Your task to perform on an android device: install app "Spotify: Music and Podcasts" Image 0: 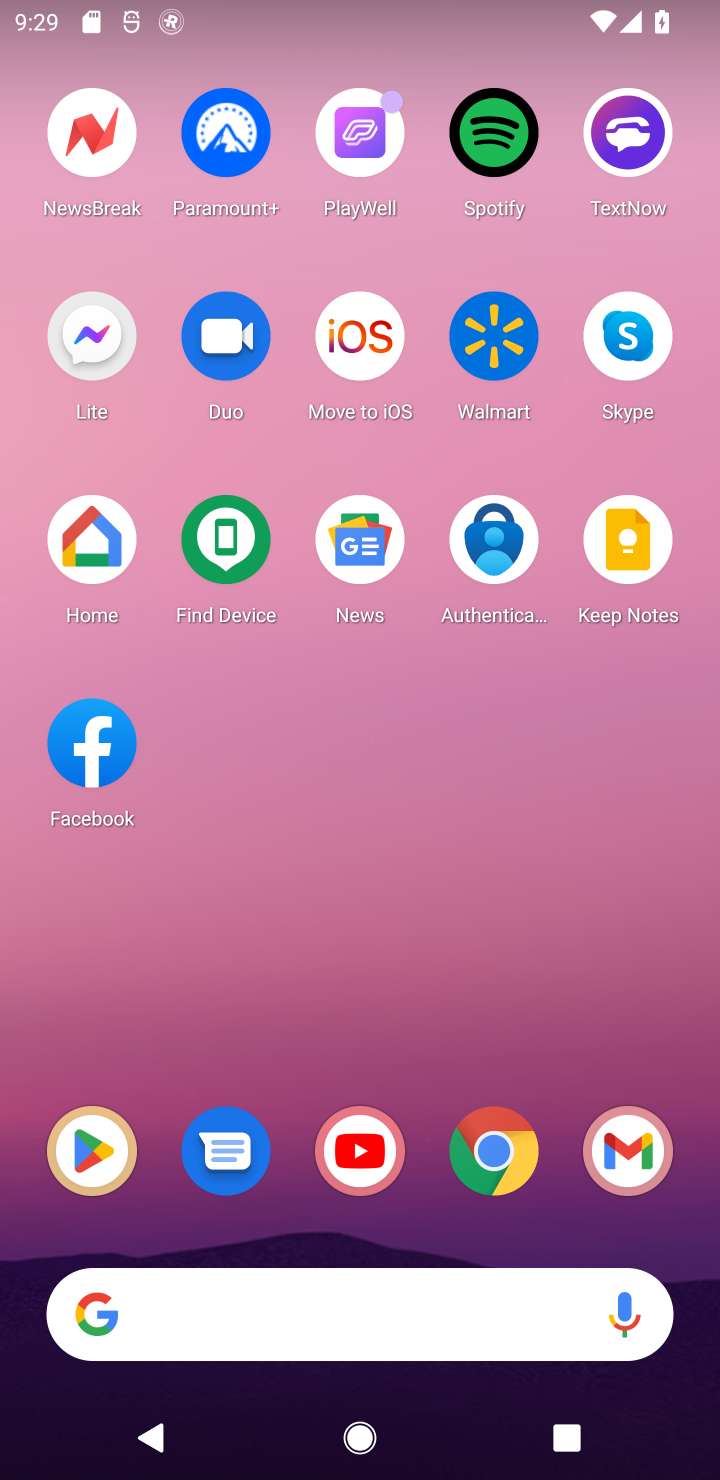
Step 0: click (71, 1131)
Your task to perform on an android device: install app "Spotify: Music and Podcasts" Image 1: 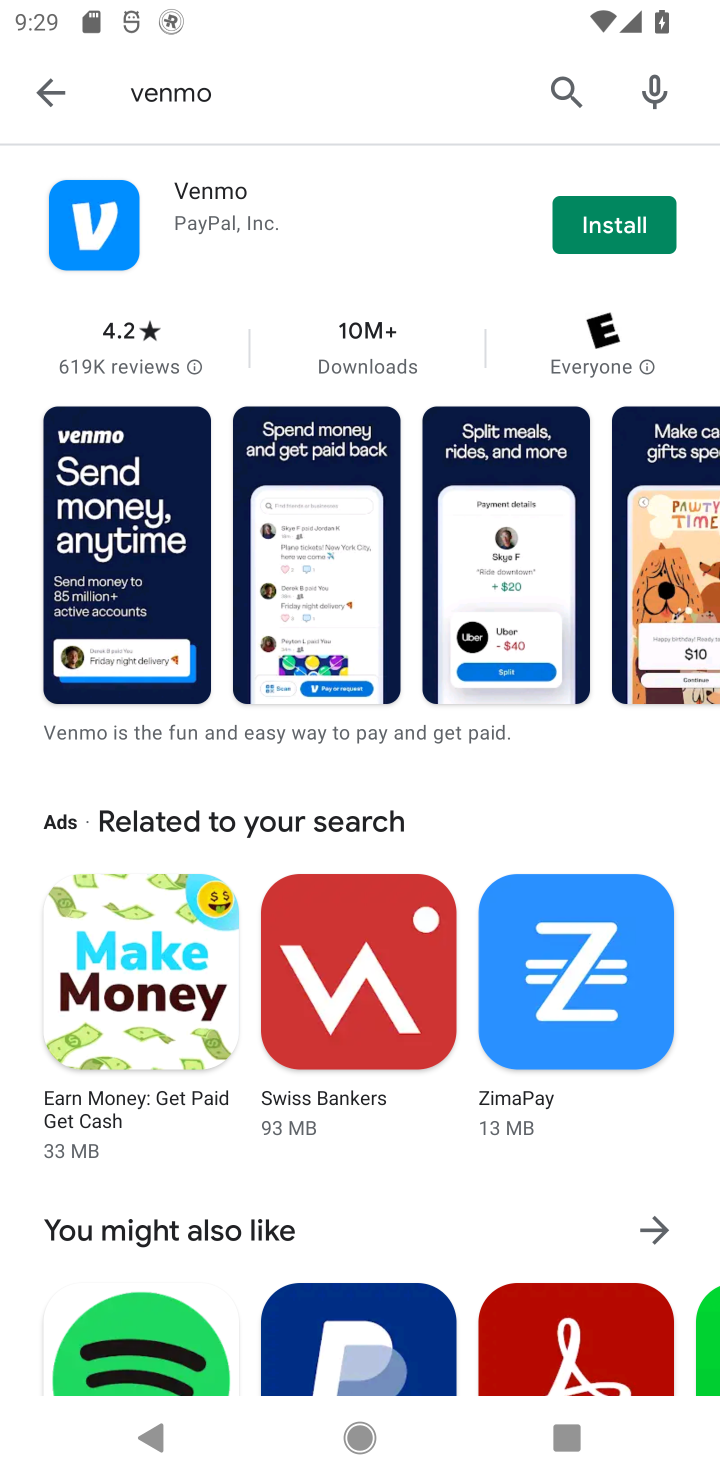
Step 1: click (574, 86)
Your task to perform on an android device: install app "Spotify: Music and Podcasts" Image 2: 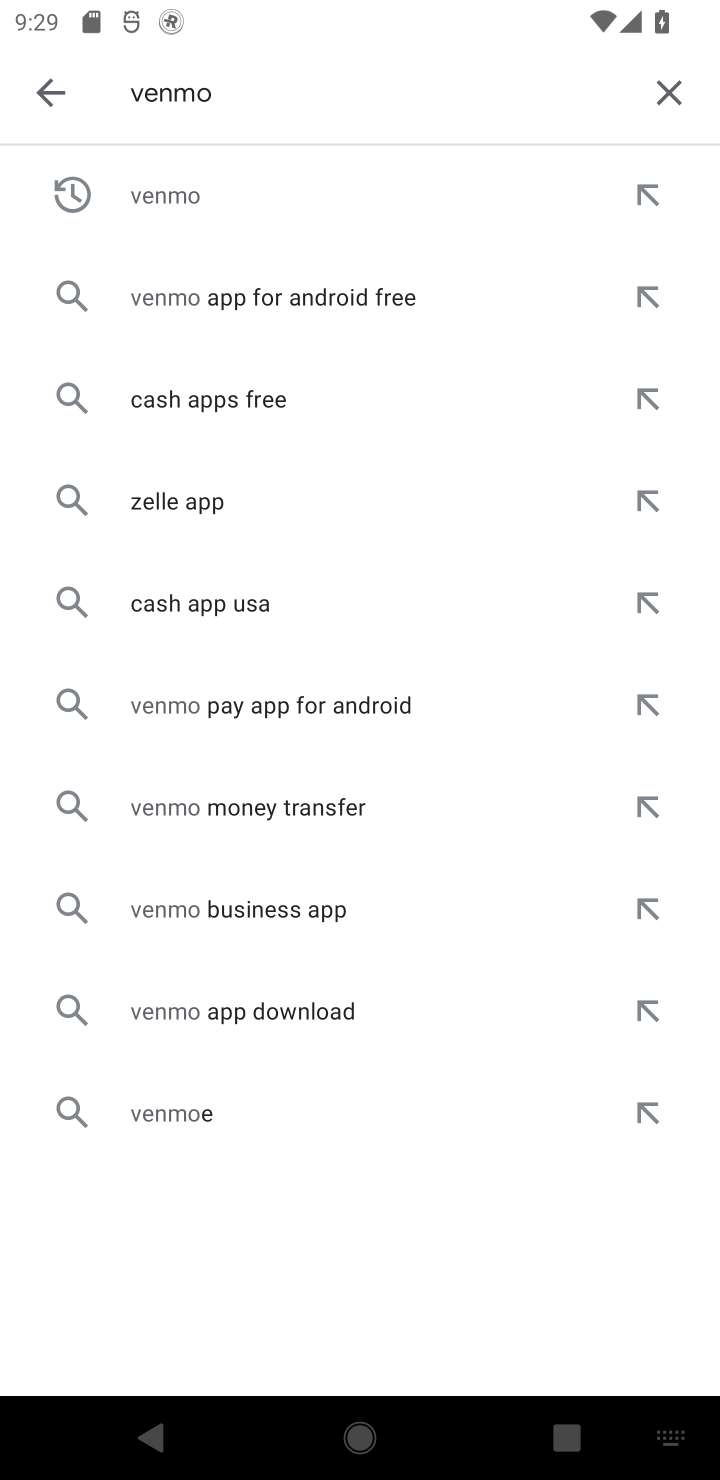
Step 2: click (661, 77)
Your task to perform on an android device: install app "Spotify: Music and Podcasts" Image 3: 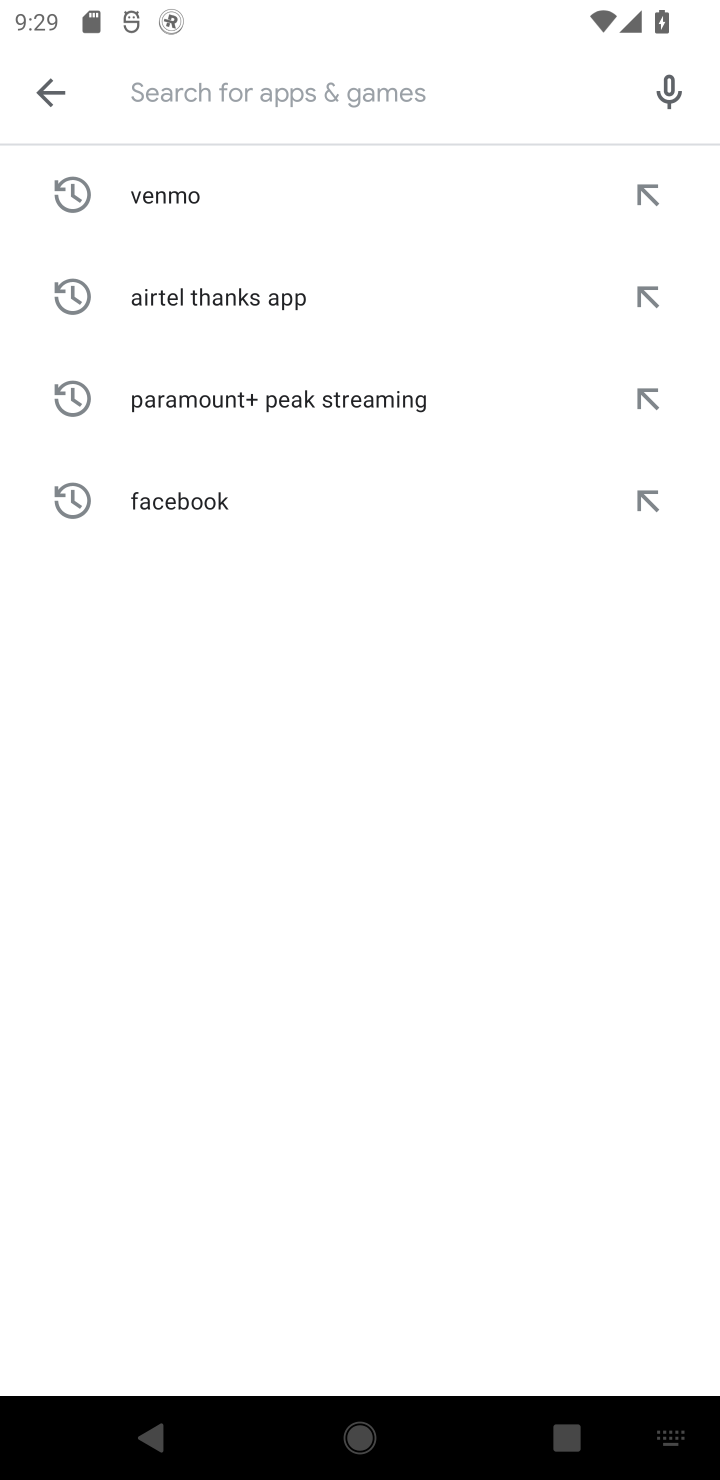
Step 3: type "Spotify: Music and Podcasts"
Your task to perform on an android device: install app "Spotify: Music and Podcasts" Image 4: 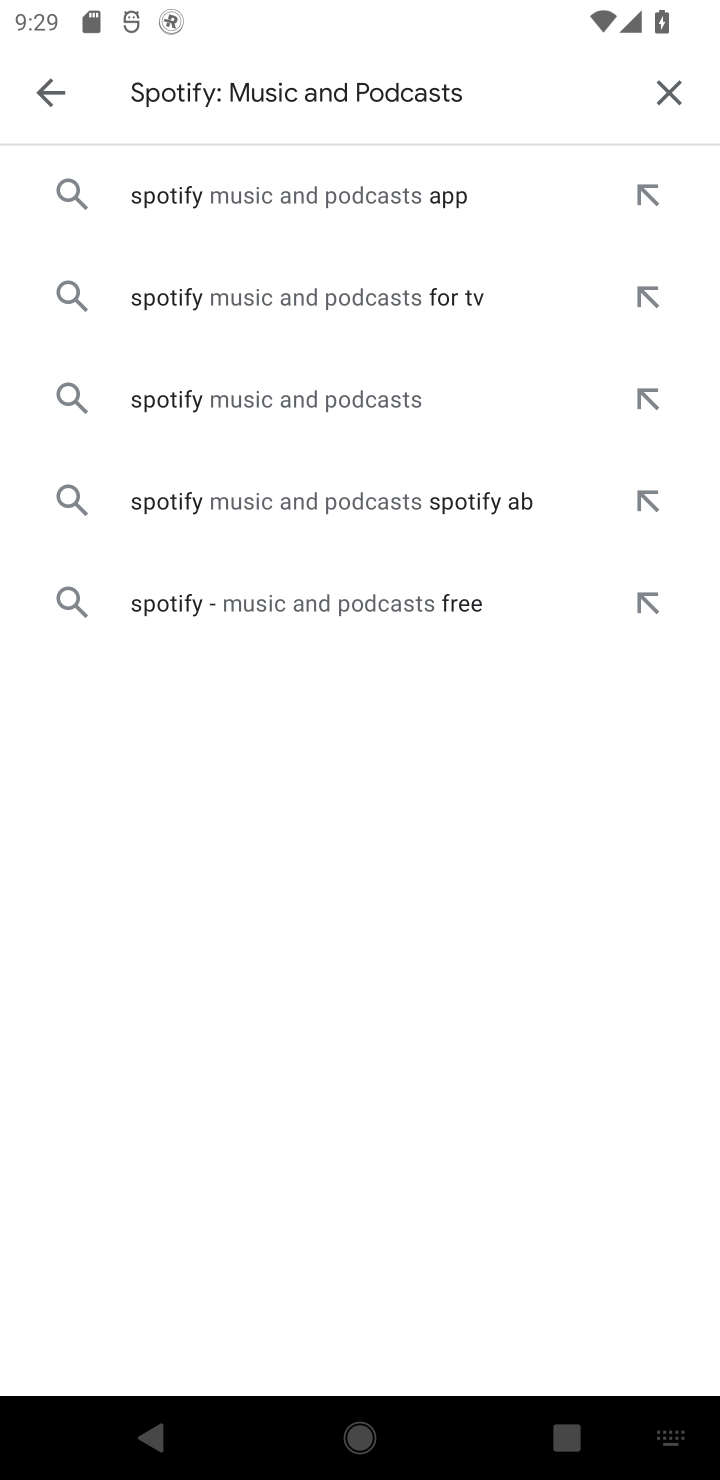
Step 4: click (365, 193)
Your task to perform on an android device: install app "Spotify: Music and Podcasts" Image 5: 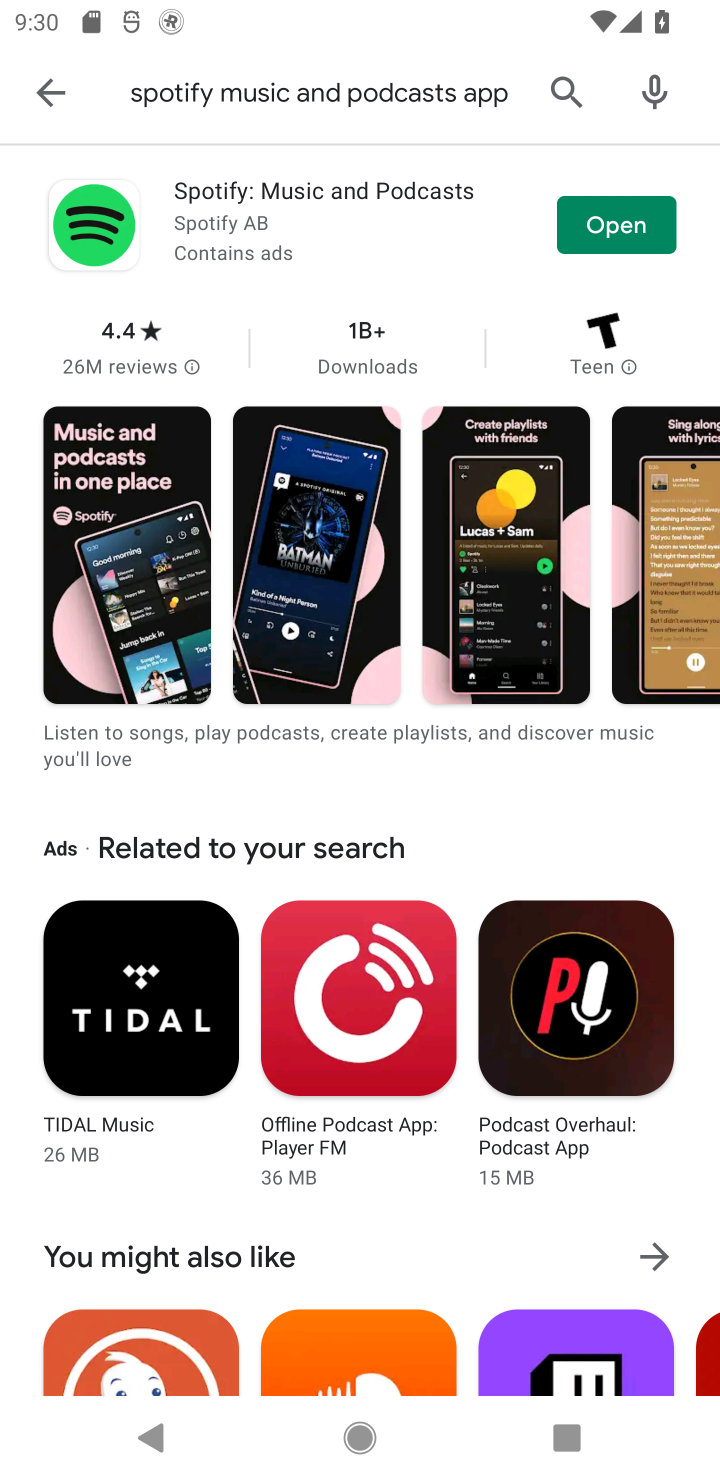
Step 5: task complete